Your task to perform on an android device: Go to Maps Image 0: 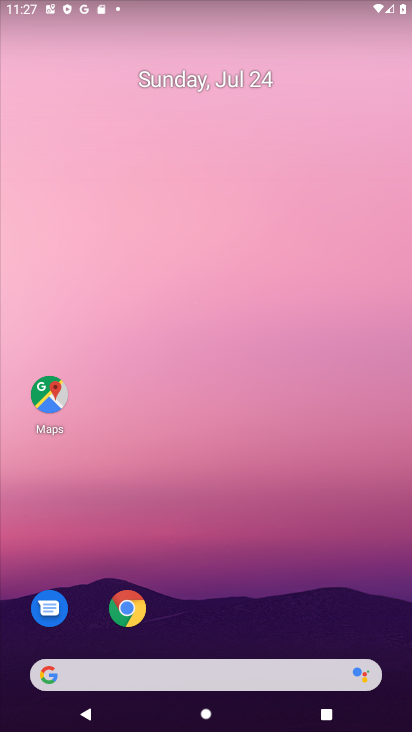
Step 0: drag from (322, 580) to (232, 159)
Your task to perform on an android device: Go to Maps Image 1: 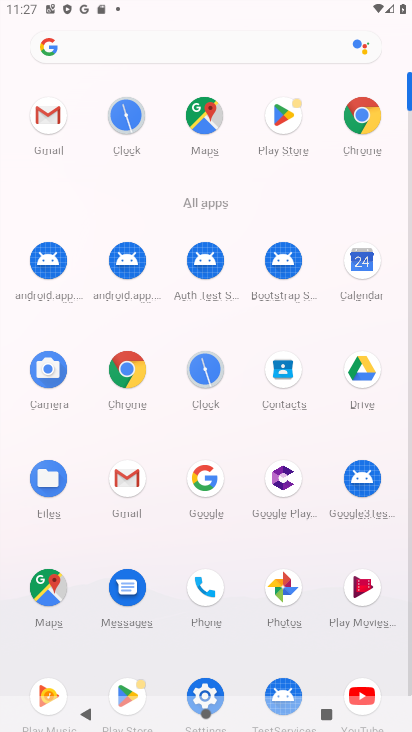
Step 1: click (202, 123)
Your task to perform on an android device: Go to Maps Image 2: 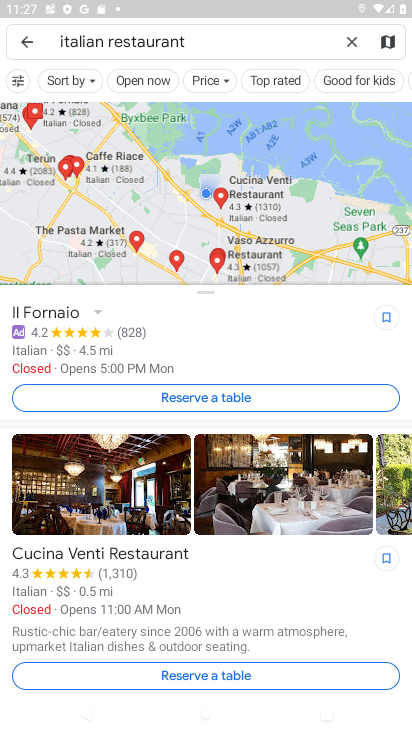
Step 2: task complete